Your task to perform on an android device: Open CNN.com Image 0: 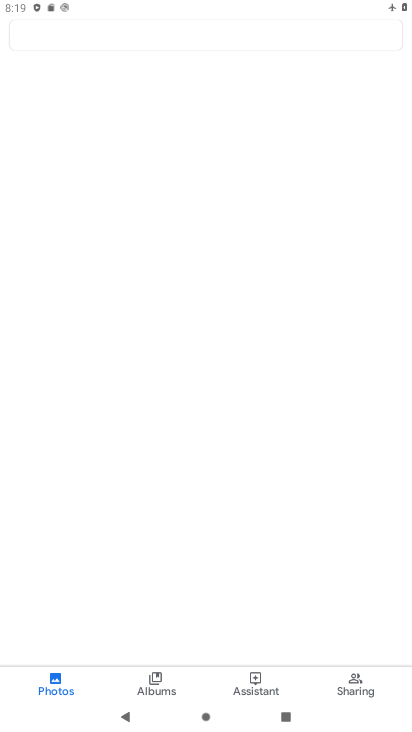
Step 0: drag from (211, 673) to (215, 180)
Your task to perform on an android device: Open CNN.com Image 1: 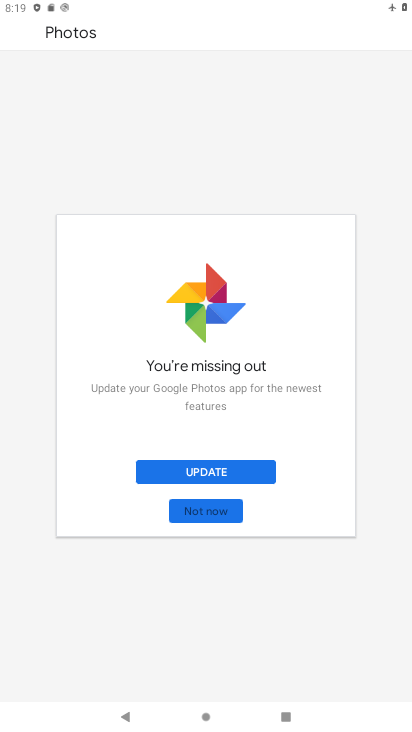
Step 1: click (206, 508)
Your task to perform on an android device: Open CNN.com Image 2: 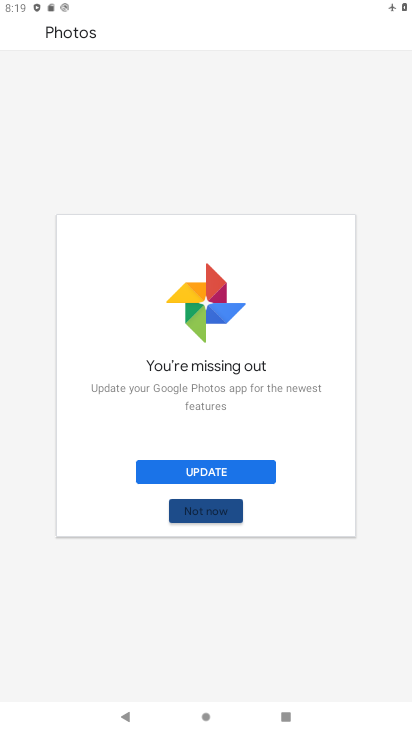
Step 2: click (206, 510)
Your task to perform on an android device: Open CNN.com Image 3: 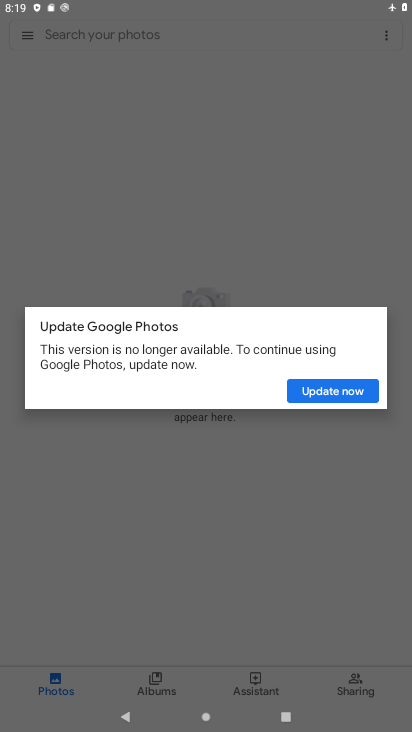
Step 3: click (246, 184)
Your task to perform on an android device: Open CNN.com Image 4: 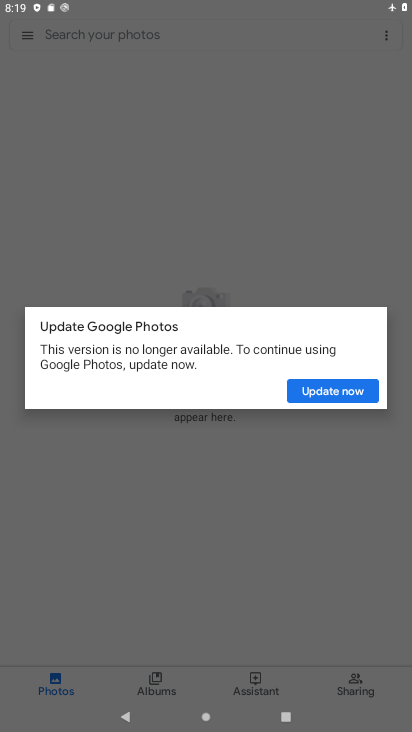
Step 4: click (246, 184)
Your task to perform on an android device: Open CNN.com Image 5: 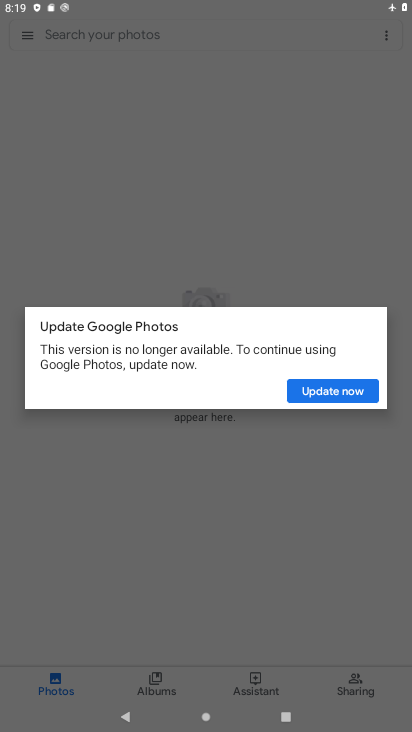
Step 5: press back button
Your task to perform on an android device: Open CNN.com Image 6: 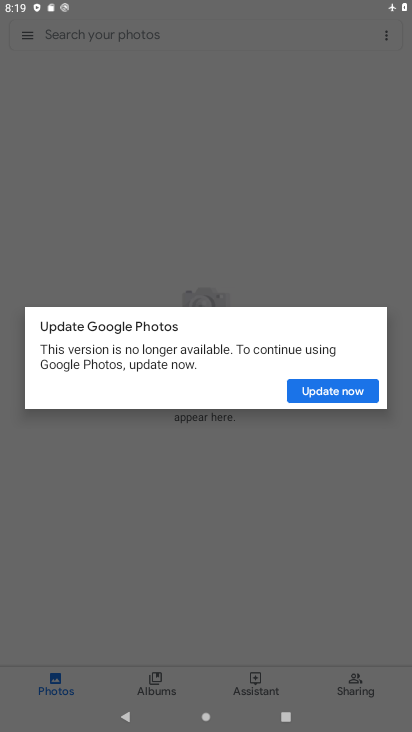
Step 6: press back button
Your task to perform on an android device: Open CNN.com Image 7: 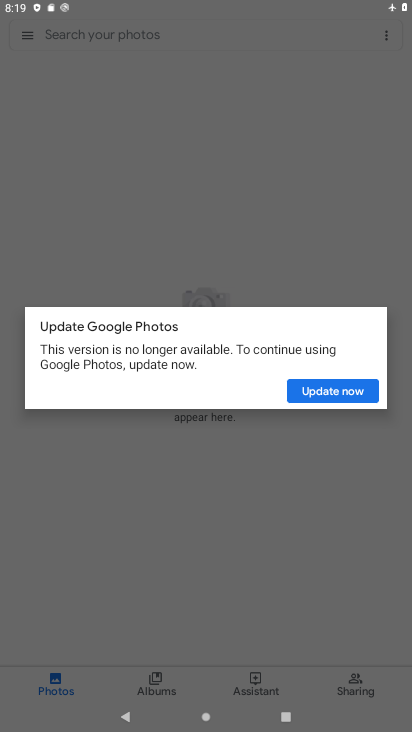
Step 7: press home button
Your task to perform on an android device: Open CNN.com Image 8: 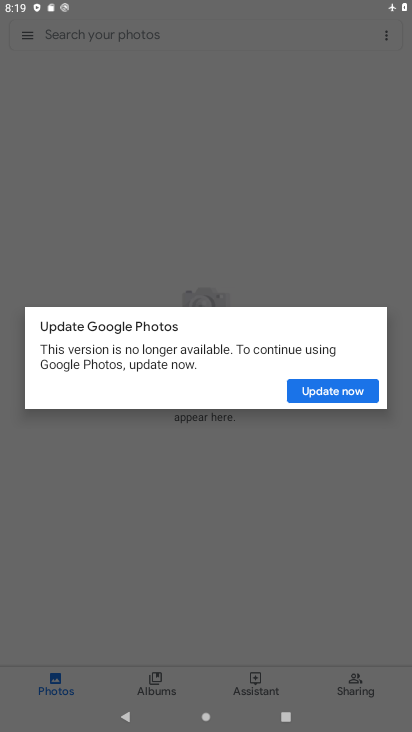
Step 8: press home button
Your task to perform on an android device: Open CNN.com Image 9: 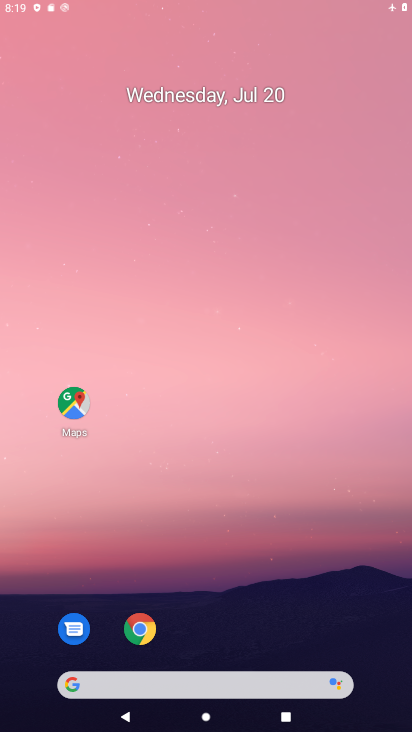
Step 9: press home button
Your task to perform on an android device: Open CNN.com Image 10: 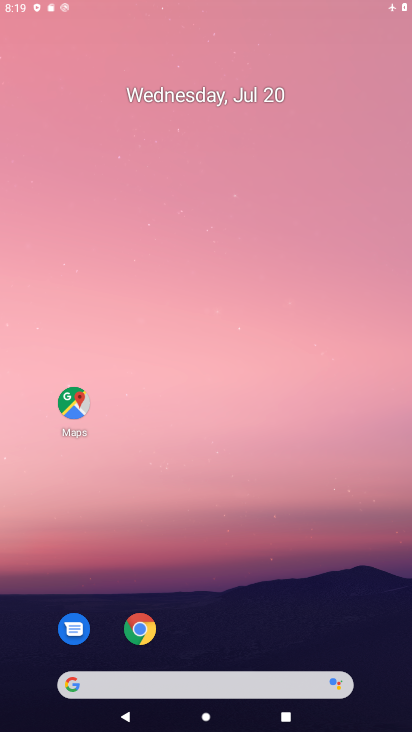
Step 10: click (216, 193)
Your task to perform on an android device: Open CNN.com Image 11: 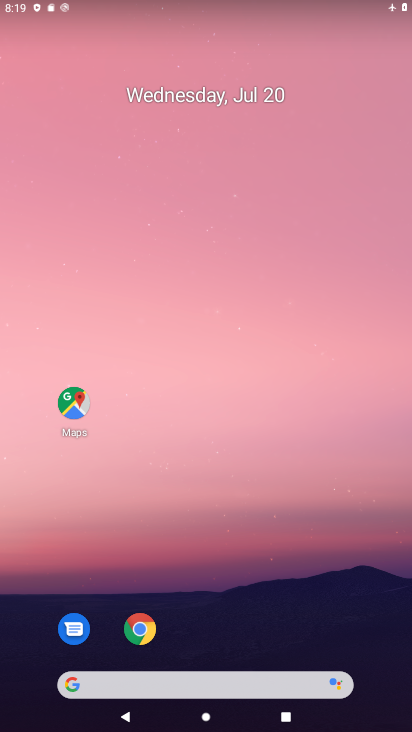
Step 11: drag from (252, 471) to (197, 223)
Your task to perform on an android device: Open CNN.com Image 12: 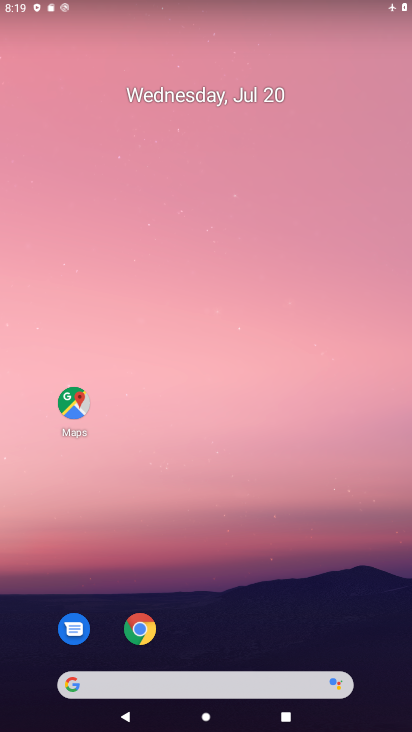
Step 12: drag from (221, 597) to (163, 198)
Your task to perform on an android device: Open CNN.com Image 13: 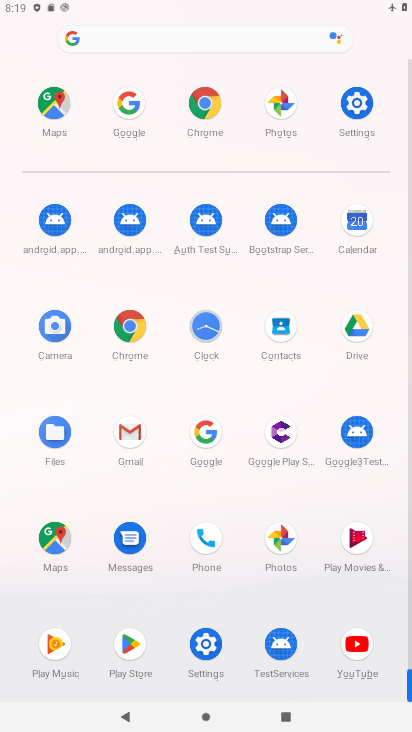
Step 13: click (210, 104)
Your task to perform on an android device: Open CNN.com Image 14: 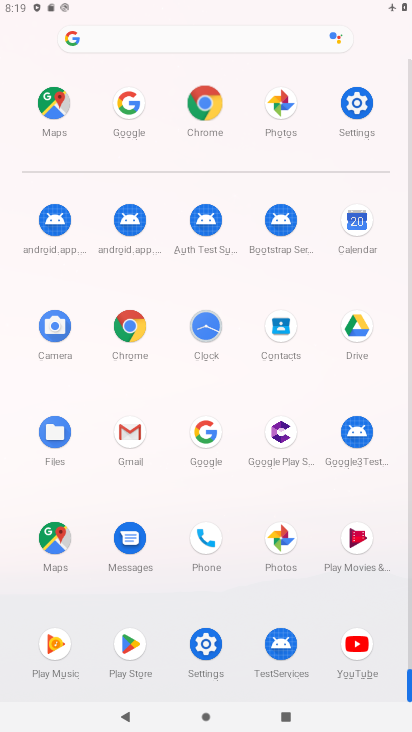
Step 14: click (211, 102)
Your task to perform on an android device: Open CNN.com Image 15: 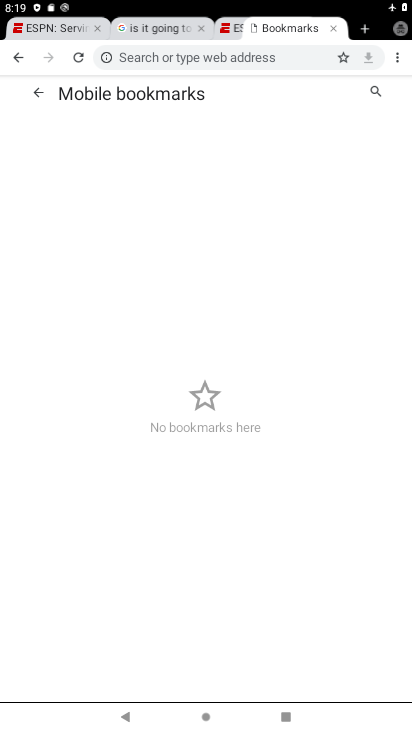
Step 15: drag from (393, 52) to (284, 48)
Your task to perform on an android device: Open CNN.com Image 16: 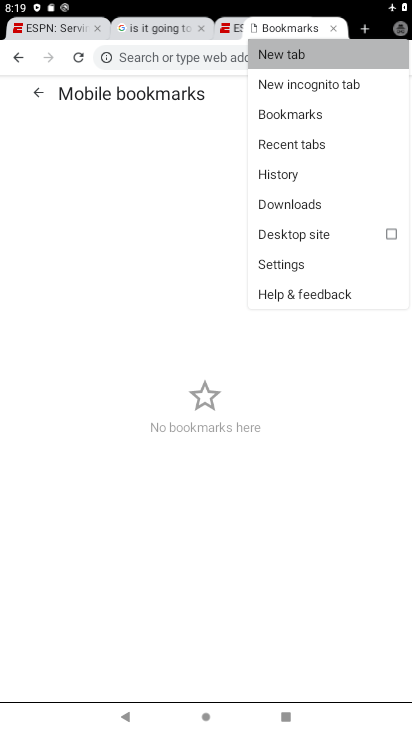
Step 16: click (286, 47)
Your task to perform on an android device: Open CNN.com Image 17: 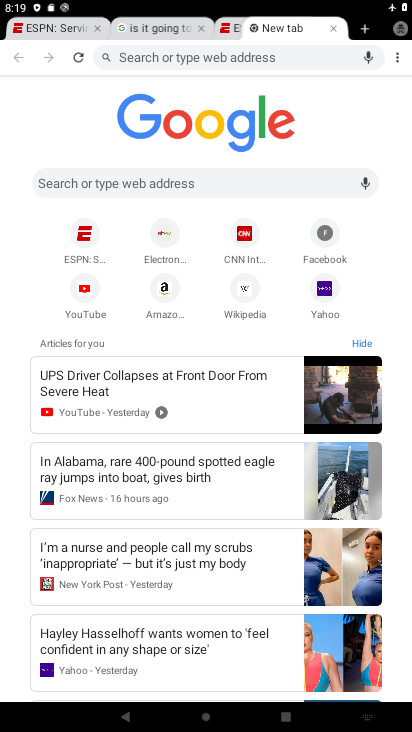
Step 17: click (78, 179)
Your task to perform on an android device: Open CNN.com Image 18: 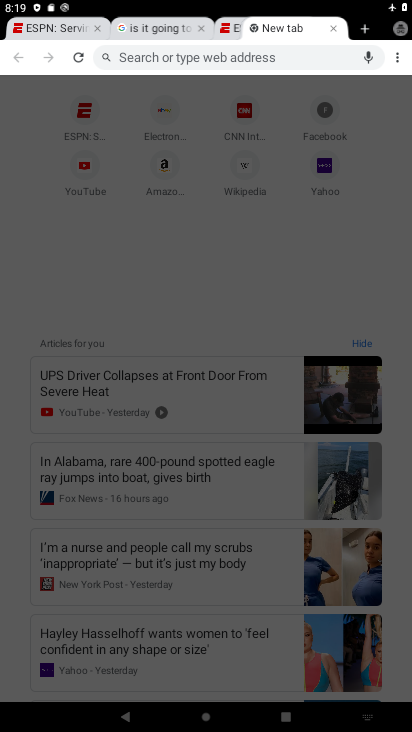
Step 18: type "CNN.com"
Your task to perform on an android device: Open CNN.com Image 19: 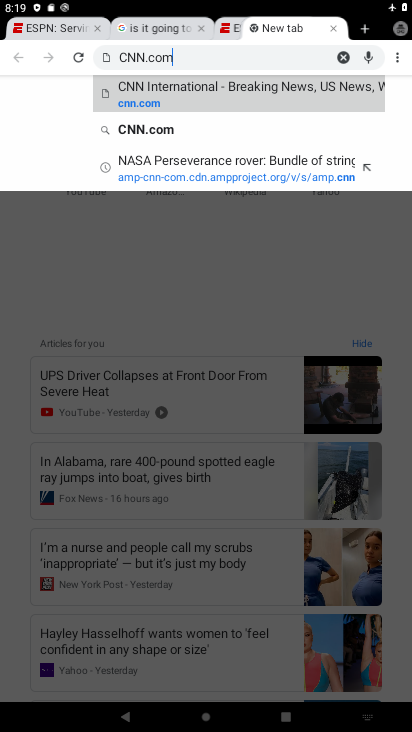
Step 19: click (154, 105)
Your task to perform on an android device: Open CNN.com Image 20: 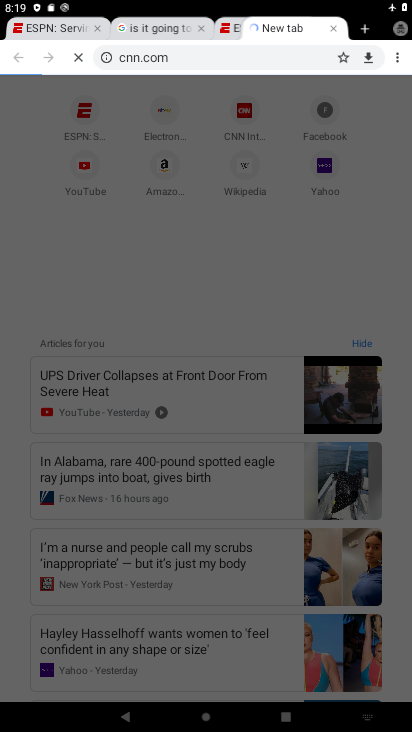
Step 20: click (157, 86)
Your task to perform on an android device: Open CNN.com Image 21: 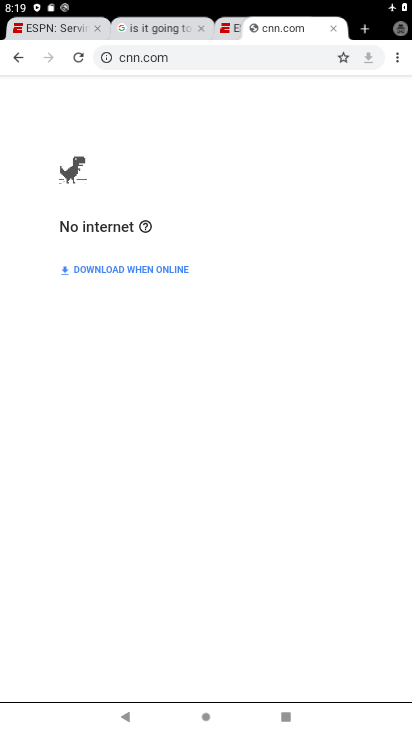
Step 21: task complete